Your task to perform on an android device: open app "Facebook" (install if not already installed) and go to login screen Image 0: 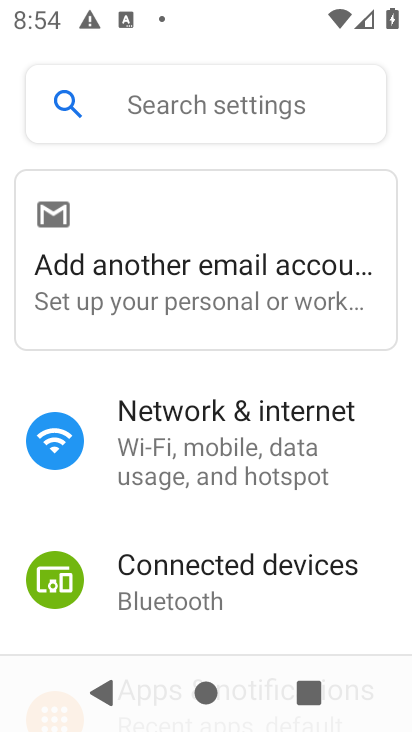
Step 0: press home button
Your task to perform on an android device: open app "Facebook" (install if not already installed) and go to login screen Image 1: 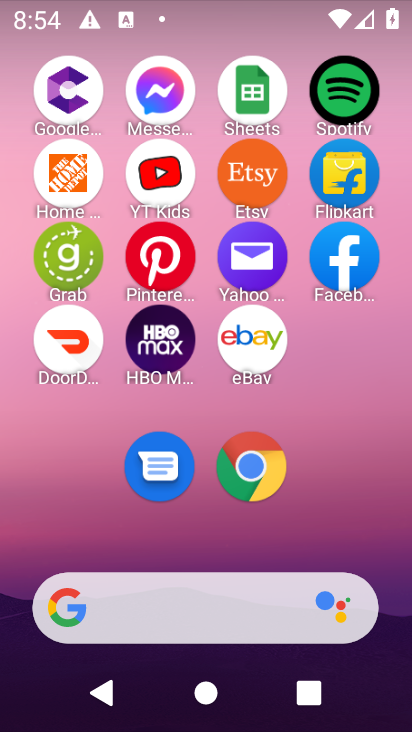
Step 1: drag from (163, 554) to (231, 7)
Your task to perform on an android device: open app "Facebook" (install if not already installed) and go to login screen Image 2: 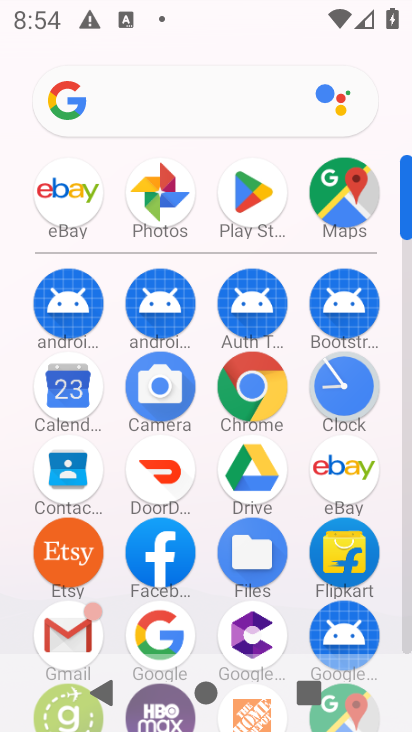
Step 2: click (159, 561)
Your task to perform on an android device: open app "Facebook" (install if not already installed) and go to login screen Image 3: 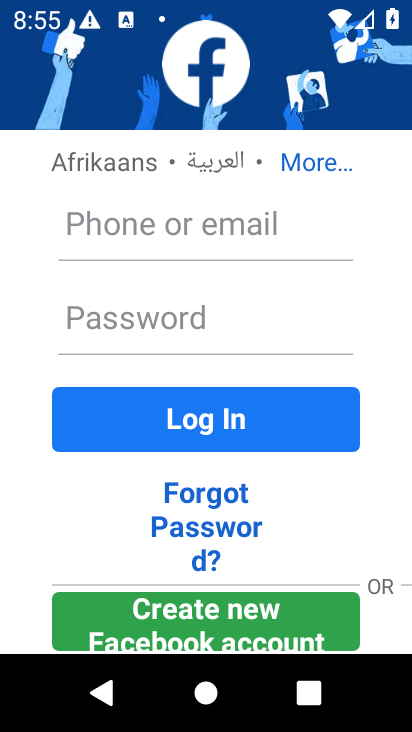
Step 3: task complete